Your task to perform on an android device: check battery use Image 0: 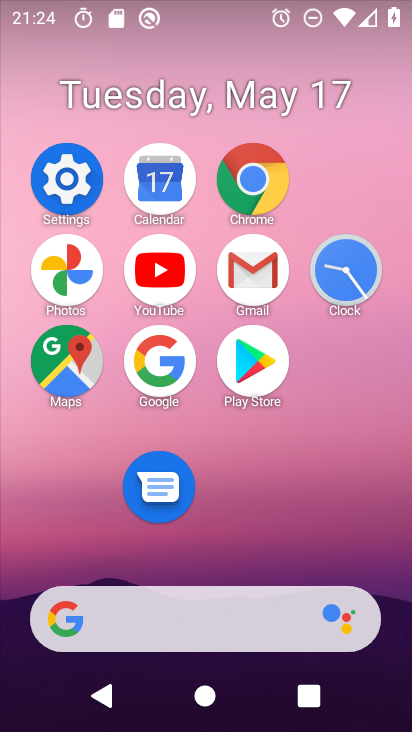
Step 0: click (81, 173)
Your task to perform on an android device: check battery use Image 1: 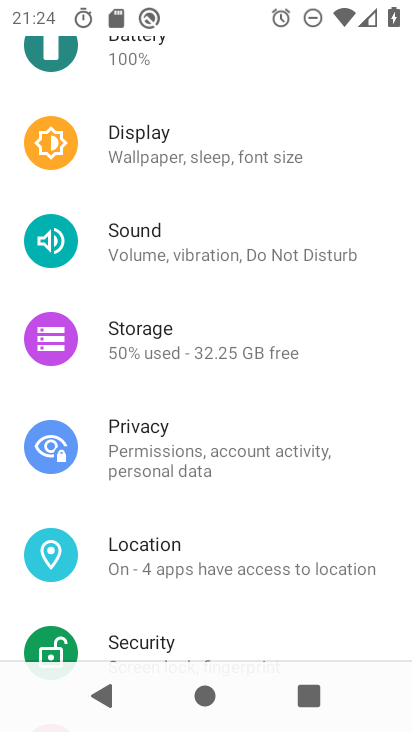
Step 1: drag from (314, 166) to (293, 388)
Your task to perform on an android device: check battery use Image 2: 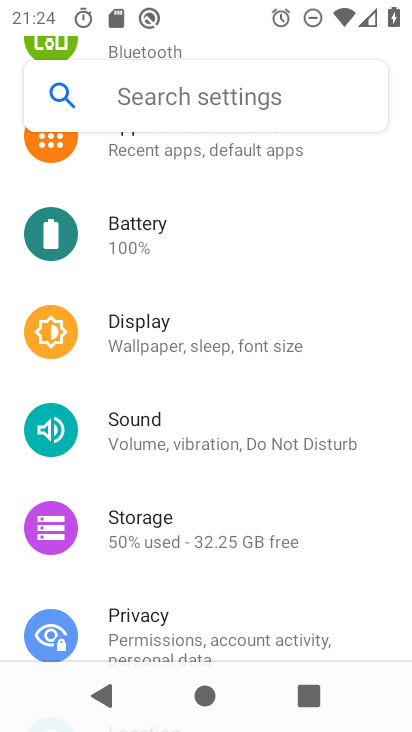
Step 2: click (136, 243)
Your task to perform on an android device: check battery use Image 3: 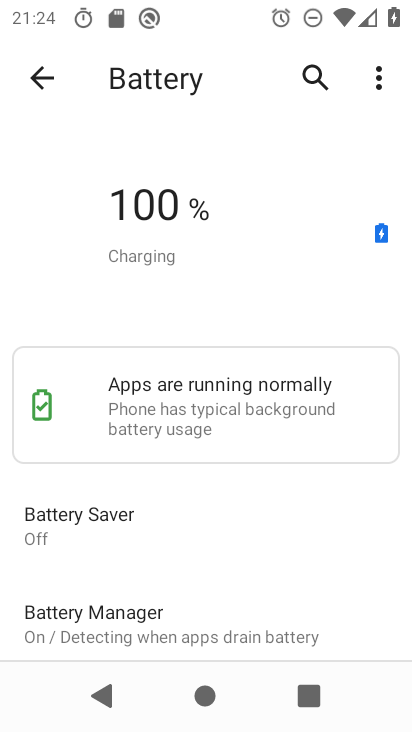
Step 3: click (366, 92)
Your task to perform on an android device: check battery use Image 4: 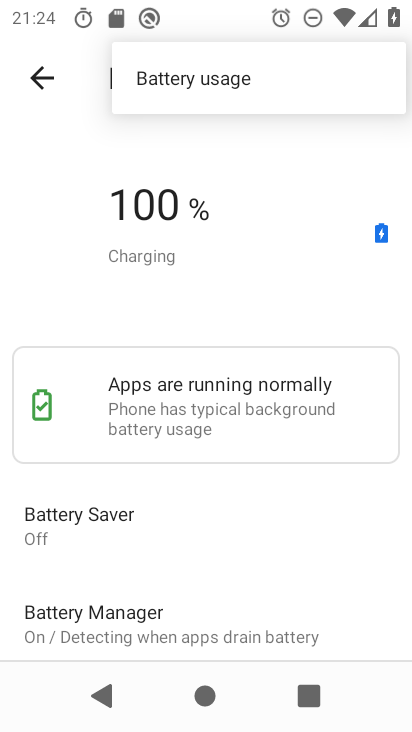
Step 4: click (290, 92)
Your task to perform on an android device: check battery use Image 5: 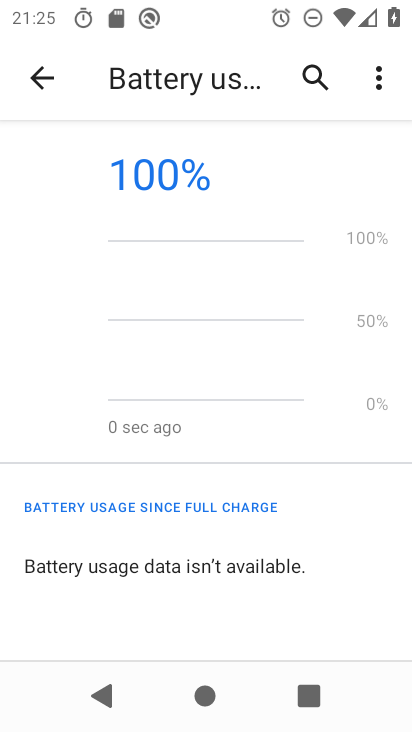
Step 5: task complete